Your task to perform on an android device: Open calendar and show me the fourth week of next month Image 0: 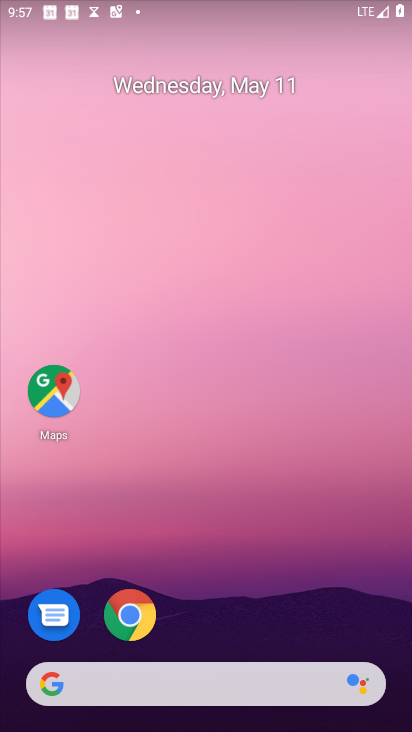
Step 0: drag from (274, 609) to (288, 217)
Your task to perform on an android device: Open calendar and show me the fourth week of next month Image 1: 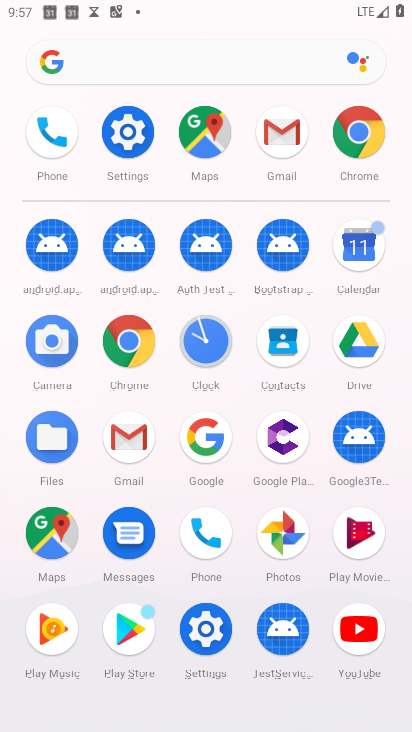
Step 1: click (371, 255)
Your task to perform on an android device: Open calendar and show me the fourth week of next month Image 2: 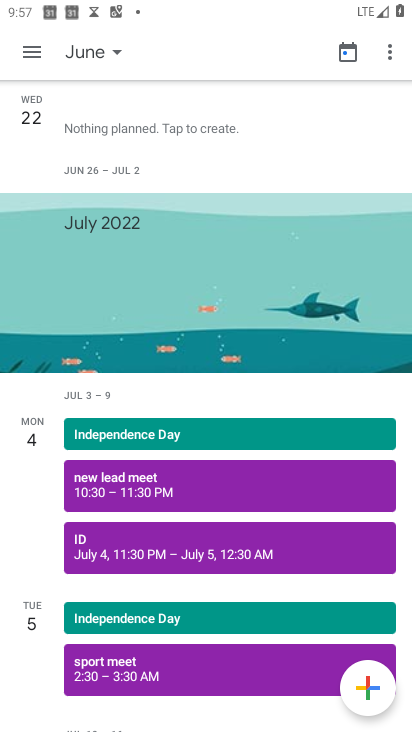
Step 2: click (114, 58)
Your task to perform on an android device: Open calendar and show me the fourth week of next month Image 3: 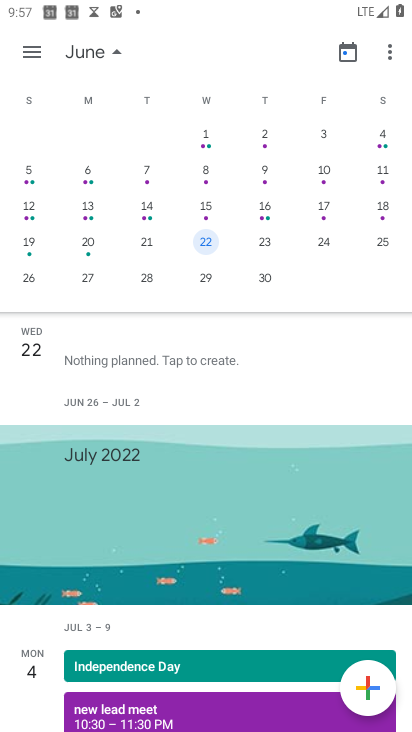
Step 3: click (37, 244)
Your task to perform on an android device: Open calendar and show me the fourth week of next month Image 4: 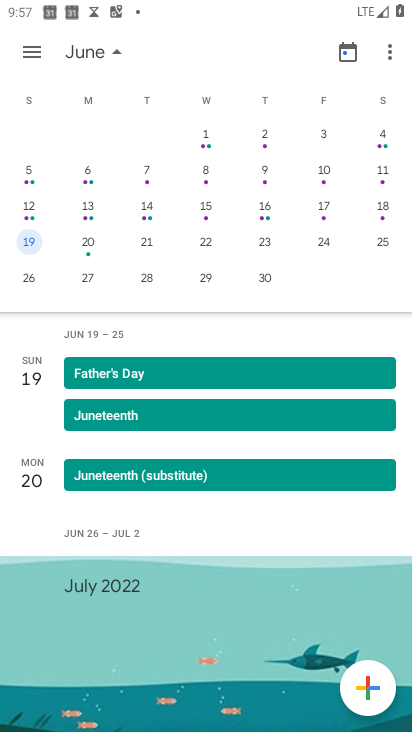
Step 4: click (27, 63)
Your task to perform on an android device: Open calendar and show me the fourth week of next month Image 5: 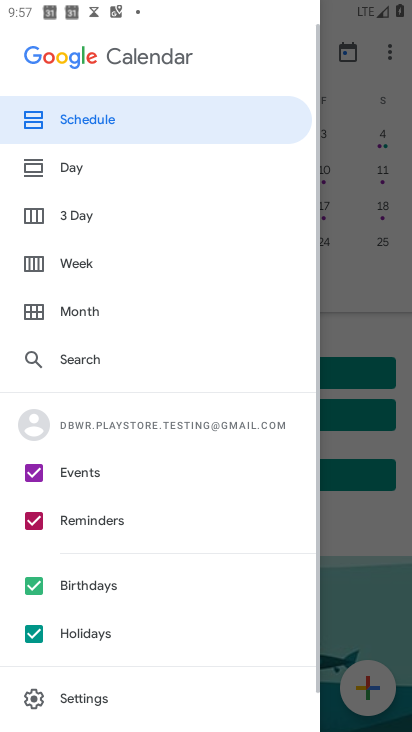
Step 5: click (92, 272)
Your task to perform on an android device: Open calendar and show me the fourth week of next month Image 6: 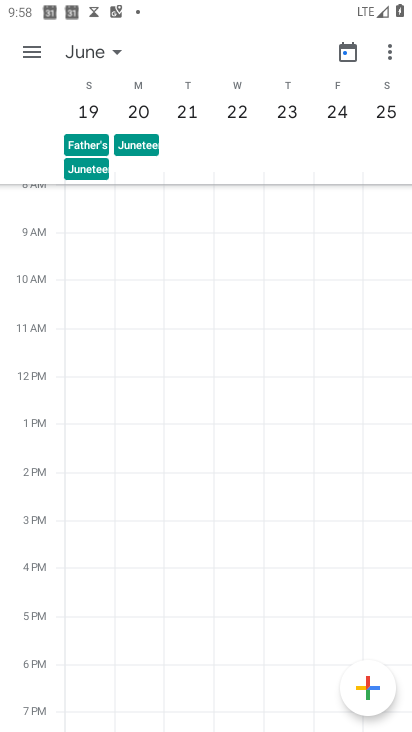
Step 6: task complete